Your task to perform on an android device: move an email to a new category in the gmail app Image 0: 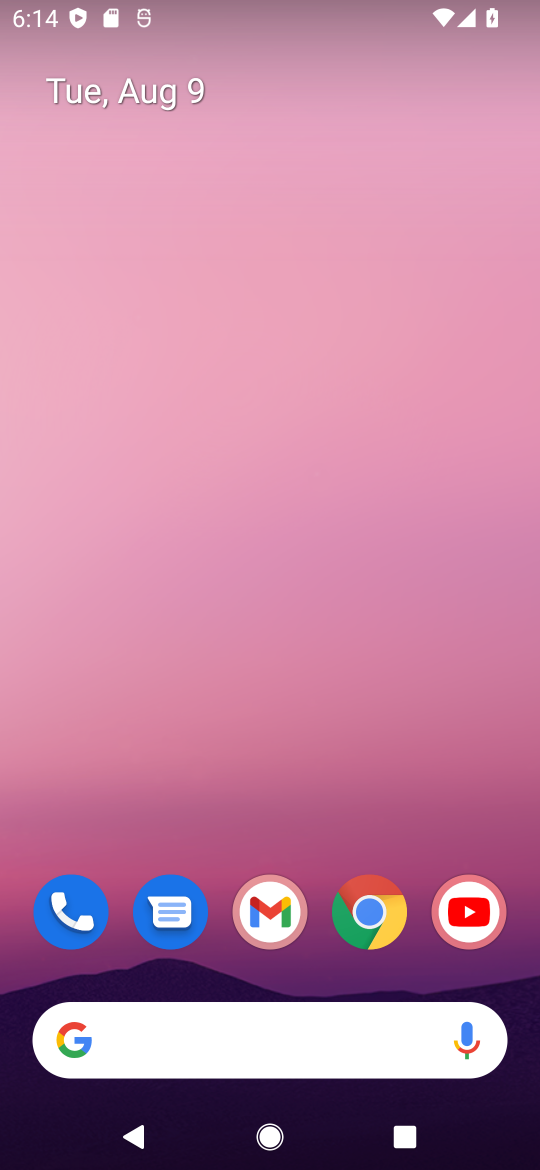
Step 0: press home button
Your task to perform on an android device: move an email to a new category in the gmail app Image 1: 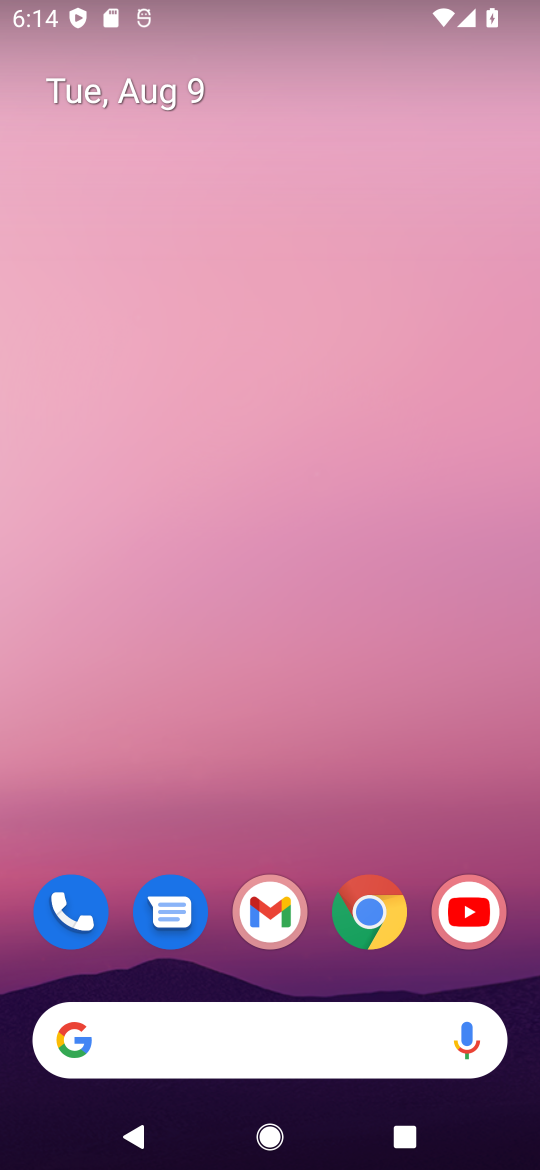
Step 1: click (269, 907)
Your task to perform on an android device: move an email to a new category in the gmail app Image 2: 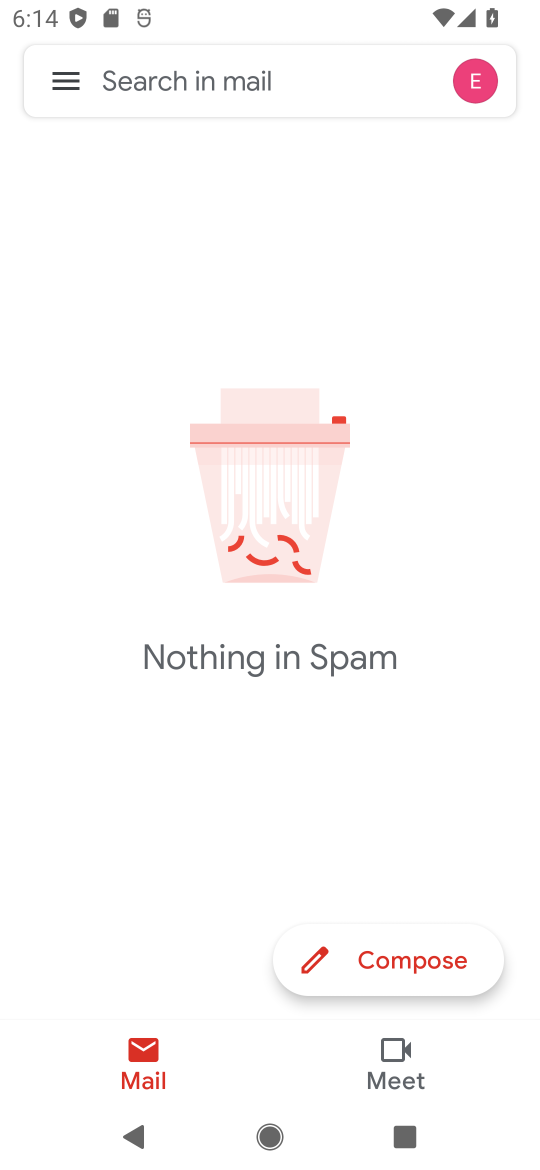
Step 2: click (77, 94)
Your task to perform on an android device: move an email to a new category in the gmail app Image 3: 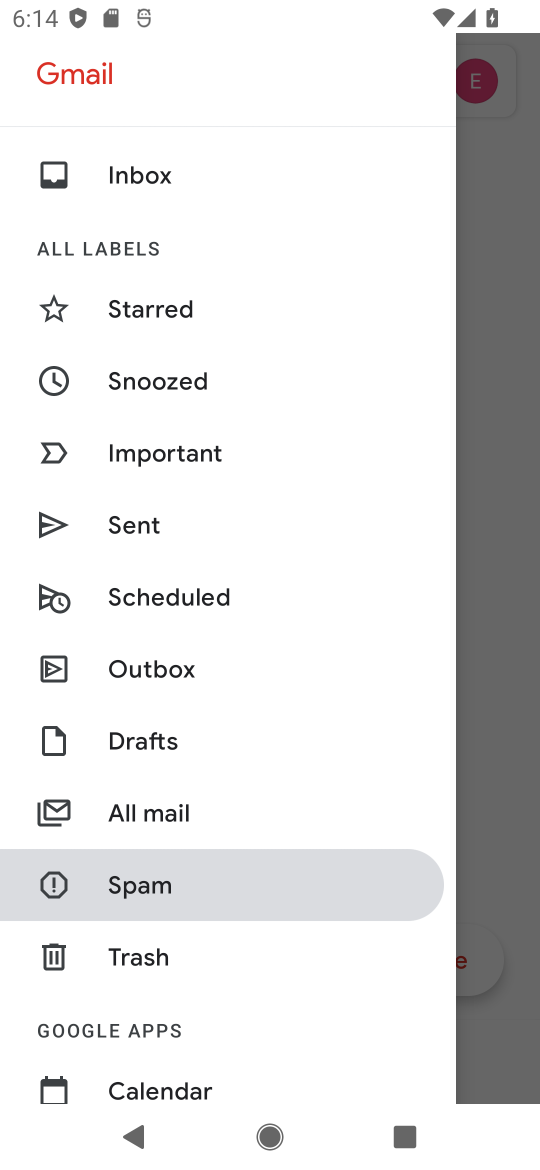
Step 3: click (192, 816)
Your task to perform on an android device: move an email to a new category in the gmail app Image 4: 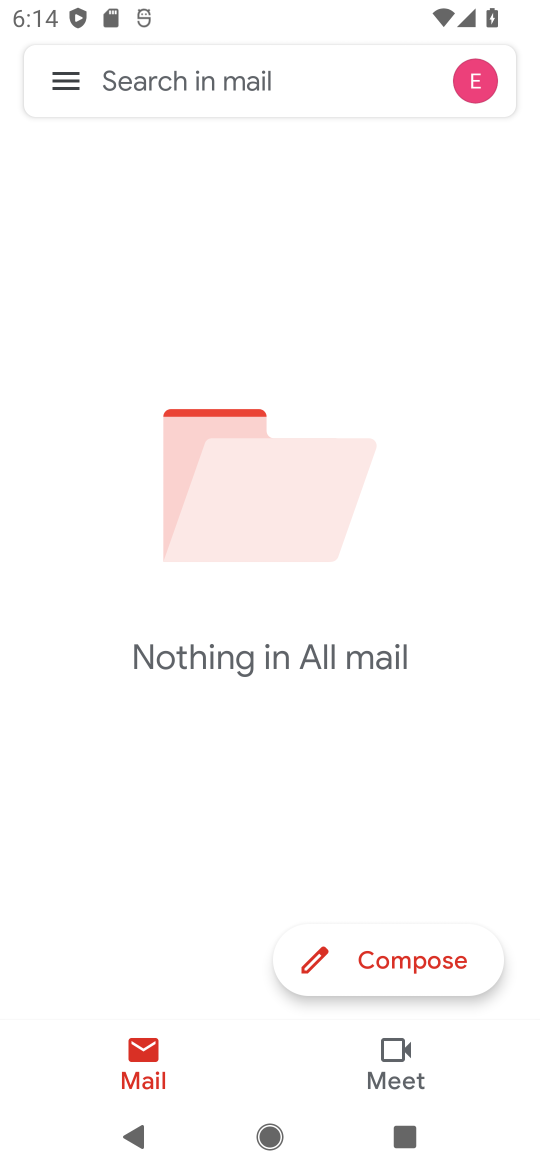
Step 4: task complete